Your task to perform on an android device: stop showing notifications on the lock screen Image 0: 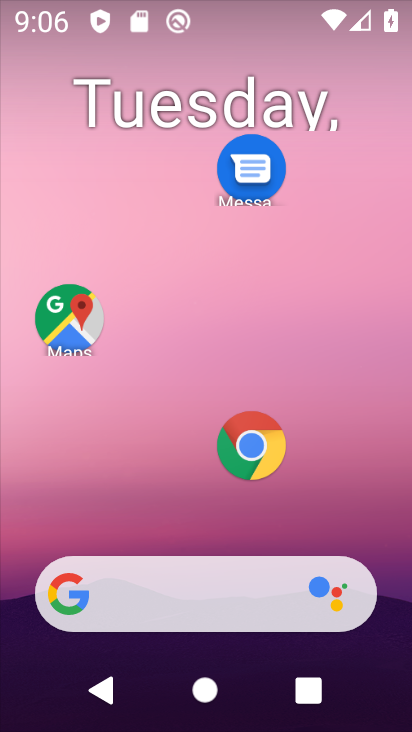
Step 0: drag from (191, 468) to (257, 28)
Your task to perform on an android device: stop showing notifications on the lock screen Image 1: 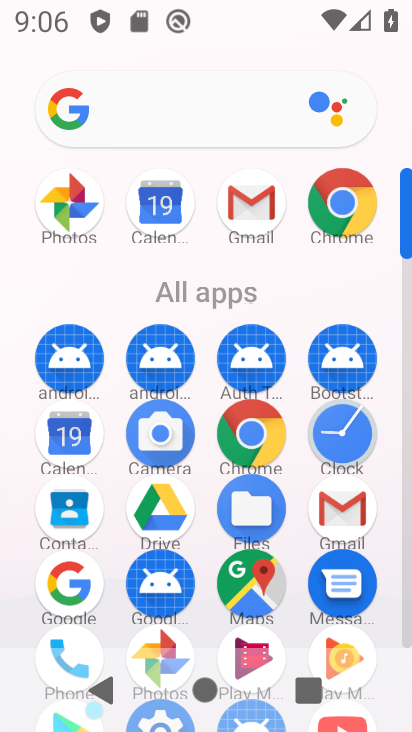
Step 1: drag from (211, 504) to (271, 74)
Your task to perform on an android device: stop showing notifications on the lock screen Image 2: 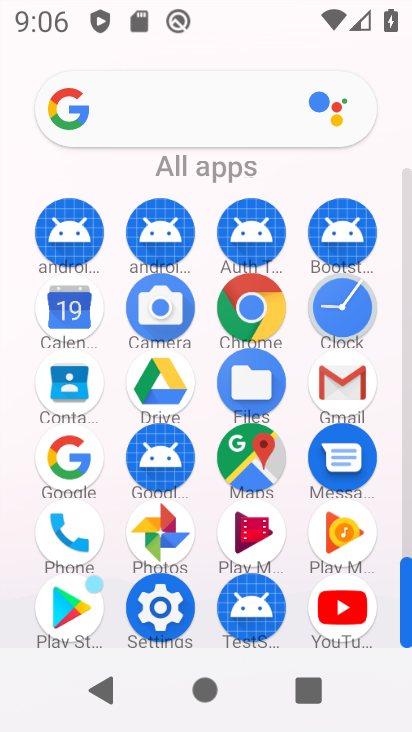
Step 2: click (157, 610)
Your task to perform on an android device: stop showing notifications on the lock screen Image 3: 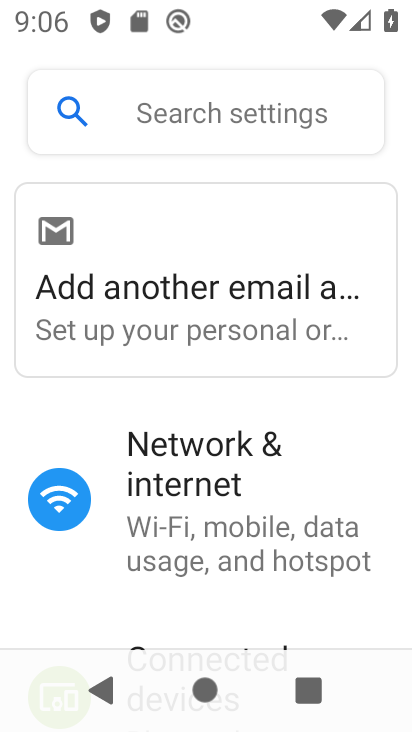
Step 3: drag from (149, 566) to (237, 81)
Your task to perform on an android device: stop showing notifications on the lock screen Image 4: 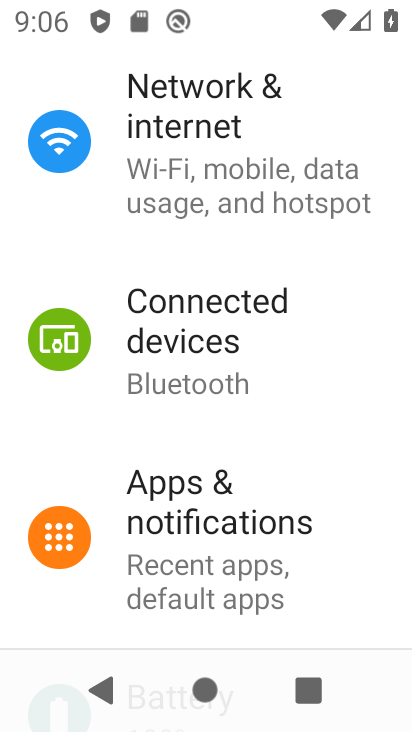
Step 4: click (202, 545)
Your task to perform on an android device: stop showing notifications on the lock screen Image 5: 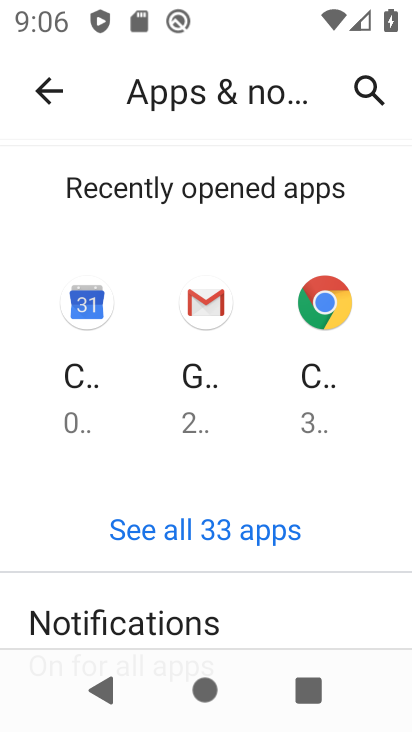
Step 5: drag from (165, 612) to (271, 148)
Your task to perform on an android device: stop showing notifications on the lock screen Image 6: 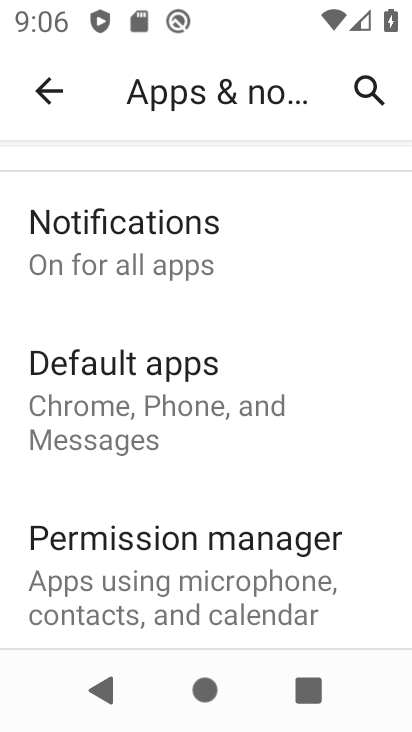
Step 6: click (163, 250)
Your task to perform on an android device: stop showing notifications on the lock screen Image 7: 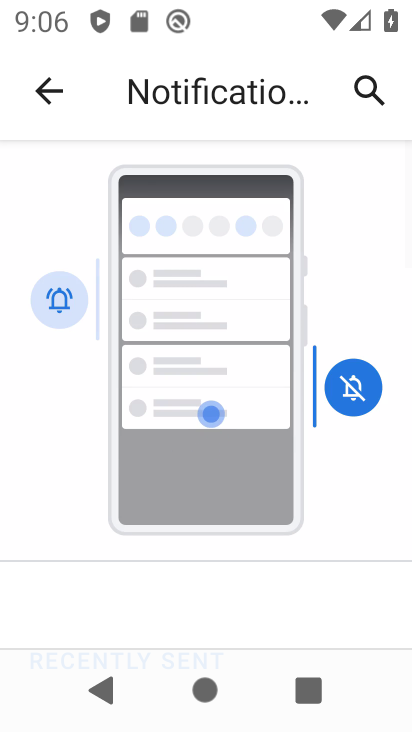
Step 7: drag from (133, 616) to (253, 175)
Your task to perform on an android device: stop showing notifications on the lock screen Image 8: 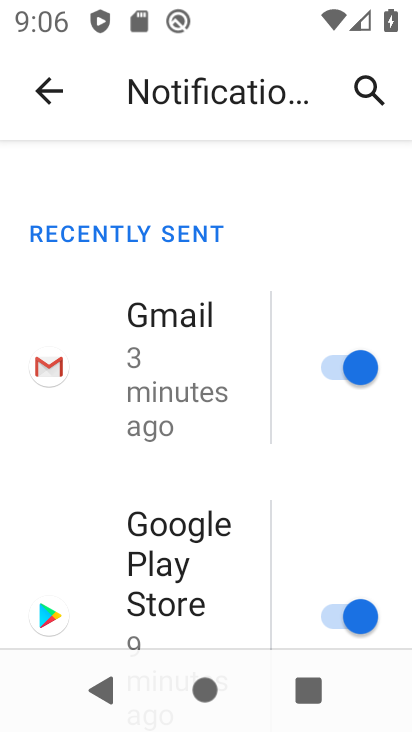
Step 8: drag from (184, 559) to (264, 114)
Your task to perform on an android device: stop showing notifications on the lock screen Image 9: 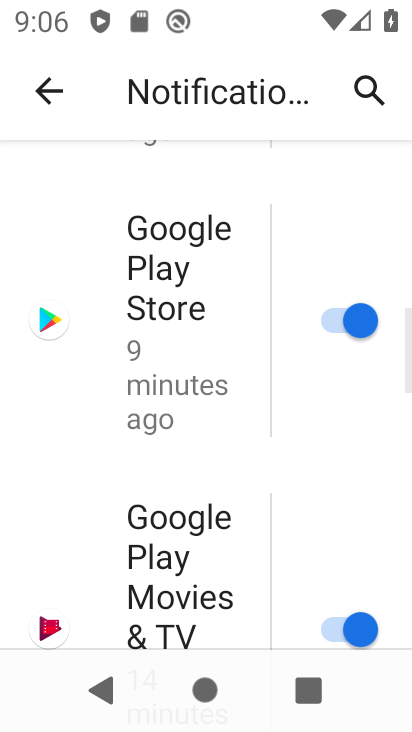
Step 9: drag from (223, 527) to (305, 94)
Your task to perform on an android device: stop showing notifications on the lock screen Image 10: 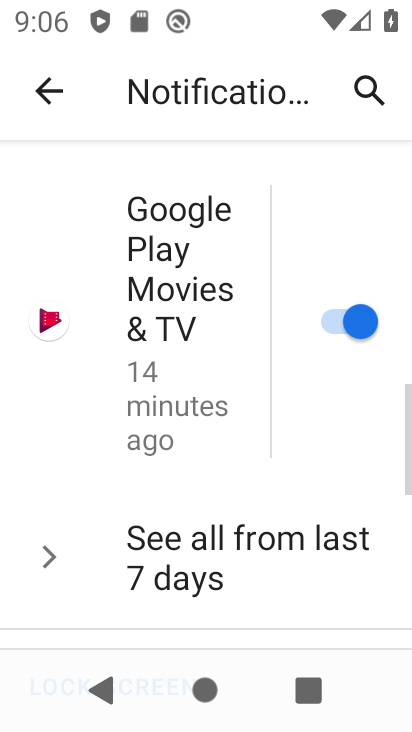
Step 10: drag from (174, 572) to (278, 66)
Your task to perform on an android device: stop showing notifications on the lock screen Image 11: 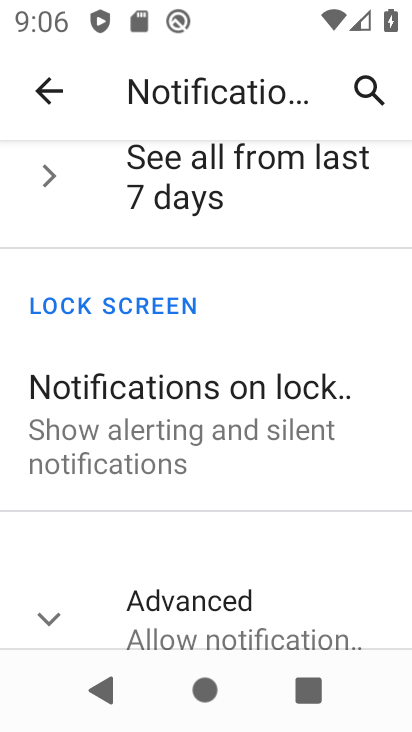
Step 11: click (208, 414)
Your task to perform on an android device: stop showing notifications on the lock screen Image 12: 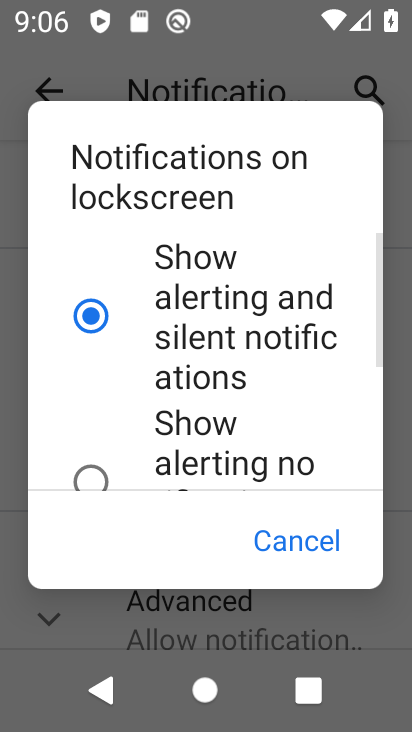
Step 12: drag from (211, 431) to (315, 61)
Your task to perform on an android device: stop showing notifications on the lock screen Image 13: 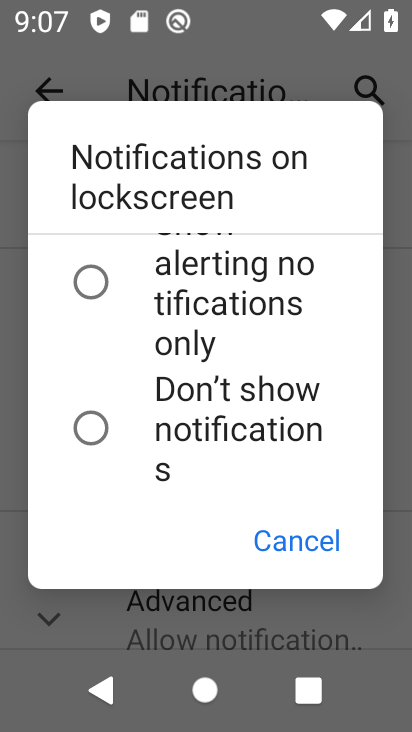
Step 13: click (107, 426)
Your task to perform on an android device: stop showing notifications on the lock screen Image 14: 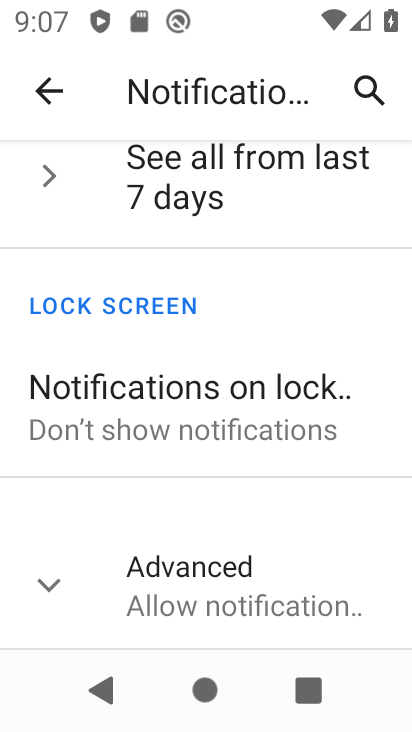
Step 14: task complete